Your task to perform on an android device: allow cookies in the chrome app Image 0: 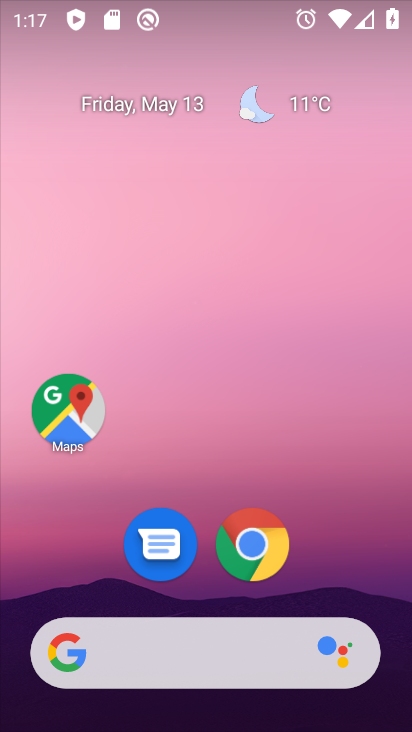
Step 0: click (249, 546)
Your task to perform on an android device: allow cookies in the chrome app Image 1: 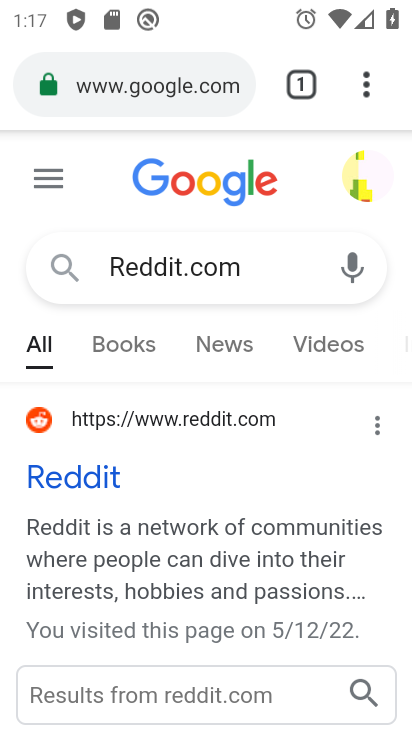
Step 1: click (365, 77)
Your task to perform on an android device: allow cookies in the chrome app Image 2: 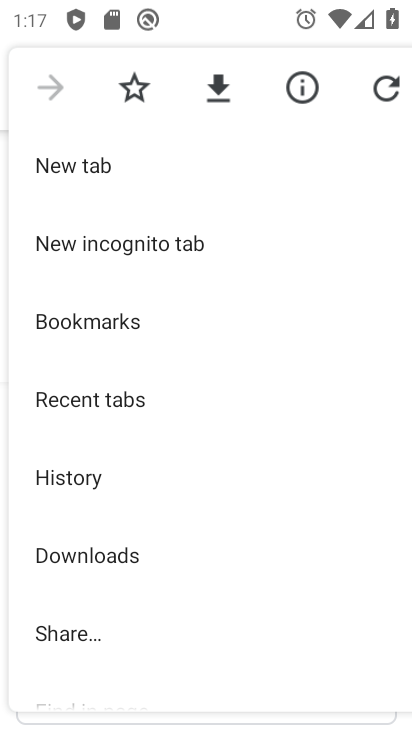
Step 2: drag from (112, 580) to (207, 215)
Your task to perform on an android device: allow cookies in the chrome app Image 3: 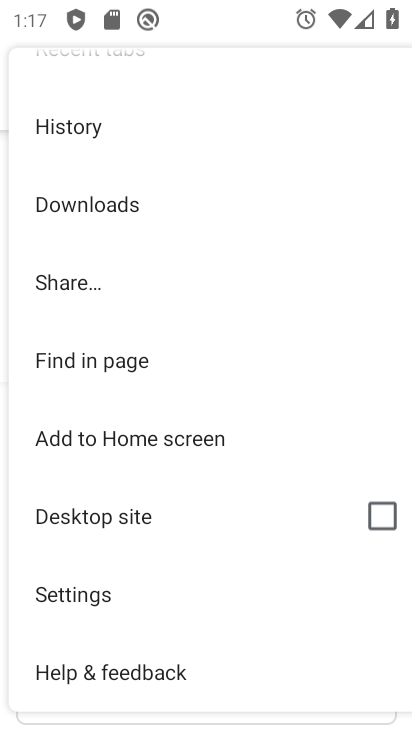
Step 3: click (80, 595)
Your task to perform on an android device: allow cookies in the chrome app Image 4: 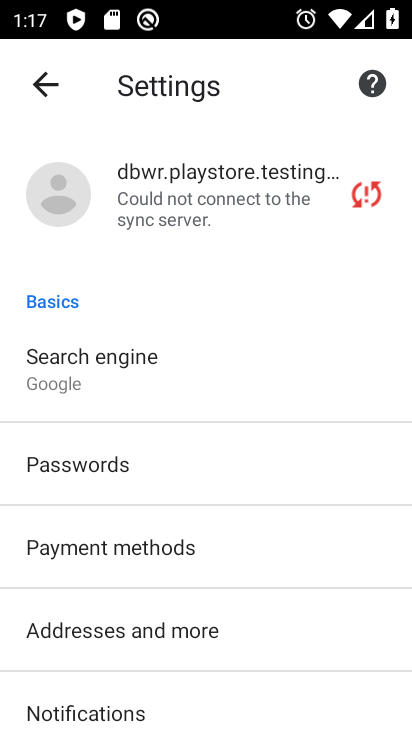
Step 4: drag from (146, 592) to (229, 181)
Your task to perform on an android device: allow cookies in the chrome app Image 5: 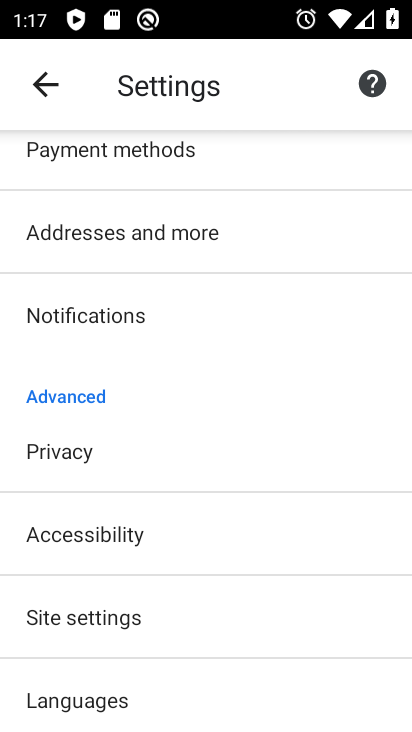
Step 5: click (88, 627)
Your task to perform on an android device: allow cookies in the chrome app Image 6: 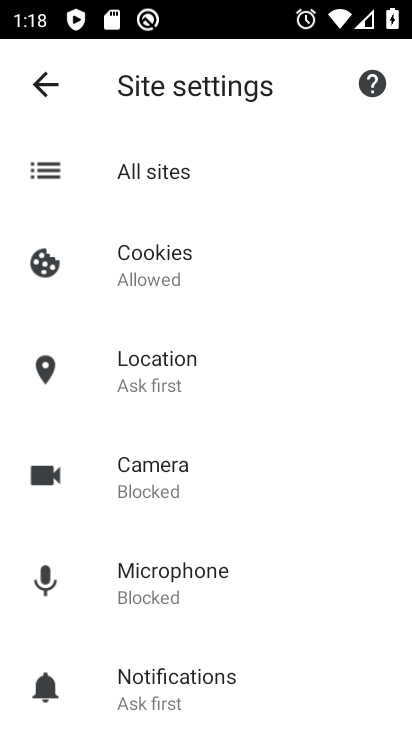
Step 6: task complete